Your task to perform on an android device: open wifi settings Image 0: 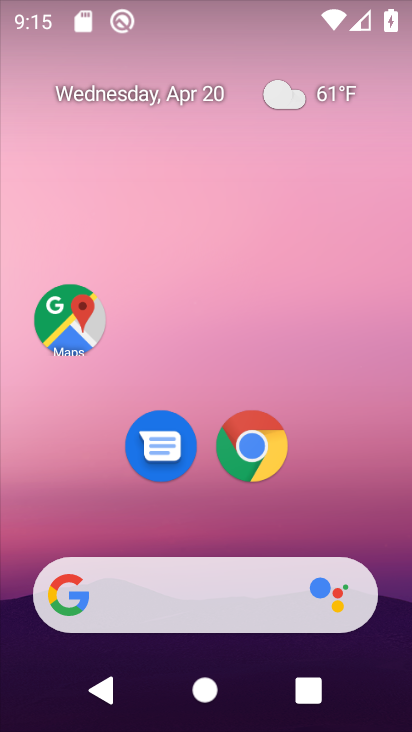
Step 0: drag from (383, 503) to (365, 106)
Your task to perform on an android device: open wifi settings Image 1: 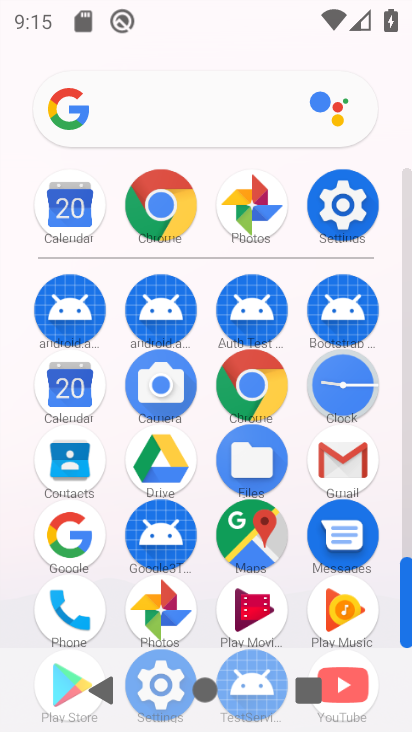
Step 1: drag from (291, 503) to (289, 148)
Your task to perform on an android device: open wifi settings Image 2: 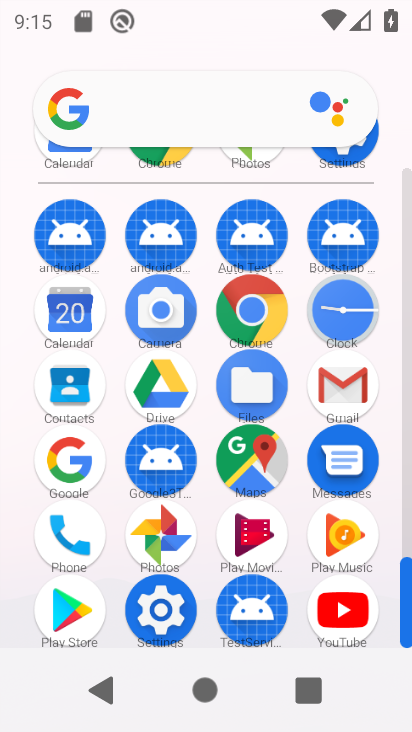
Step 2: drag from (293, 506) to (301, 256)
Your task to perform on an android device: open wifi settings Image 3: 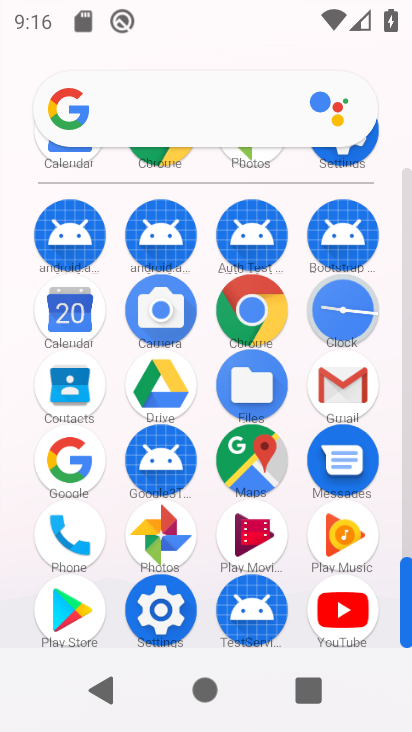
Step 3: drag from (295, 513) to (297, 233)
Your task to perform on an android device: open wifi settings Image 4: 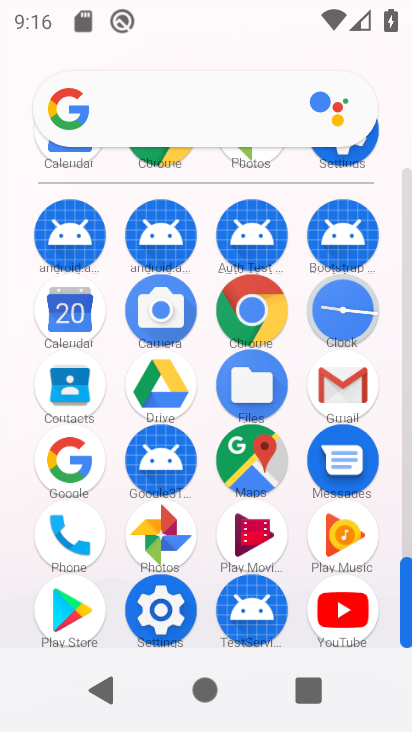
Step 4: drag from (209, 562) to (184, 328)
Your task to perform on an android device: open wifi settings Image 5: 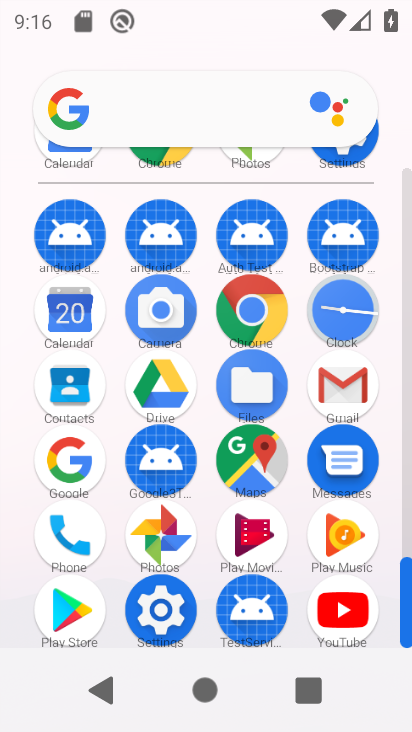
Step 5: click (175, 609)
Your task to perform on an android device: open wifi settings Image 6: 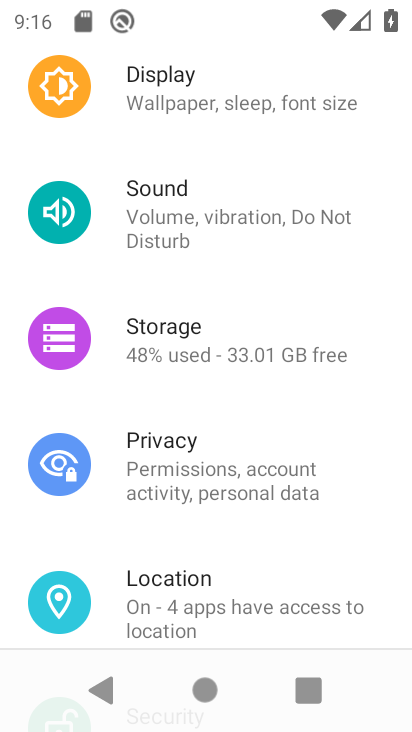
Step 6: drag from (283, 510) to (292, 244)
Your task to perform on an android device: open wifi settings Image 7: 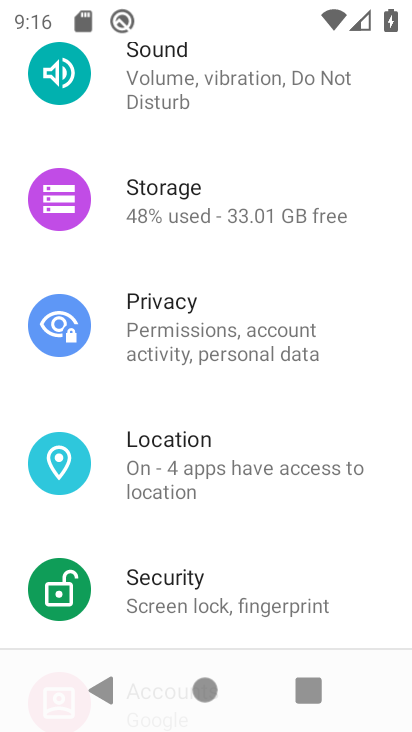
Step 7: drag from (329, 131) to (267, 540)
Your task to perform on an android device: open wifi settings Image 8: 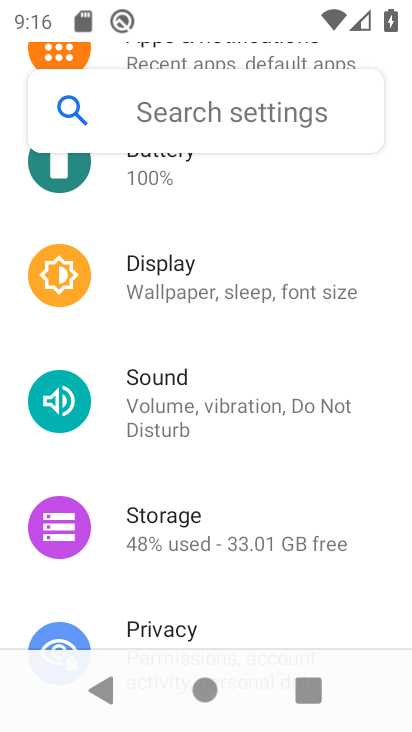
Step 8: drag from (303, 220) to (286, 556)
Your task to perform on an android device: open wifi settings Image 9: 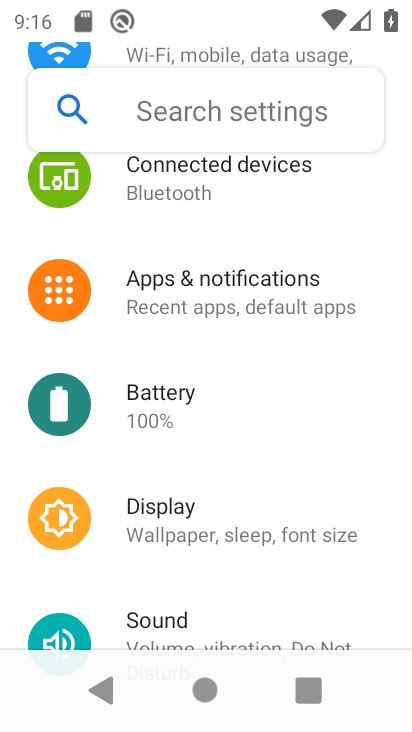
Step 9: drag from (278, 252) to (278, 587)
Your task to perform on an android device: open wifi settings Image 10: 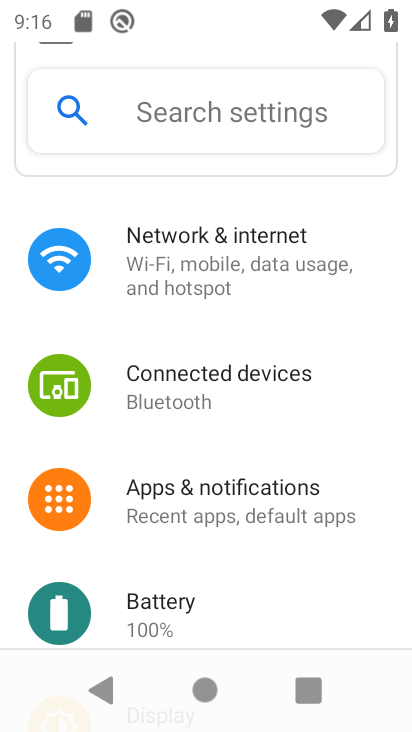
Step 10: click (220, 287)
Your task to perform on an android device: open wifi settings Image 11: 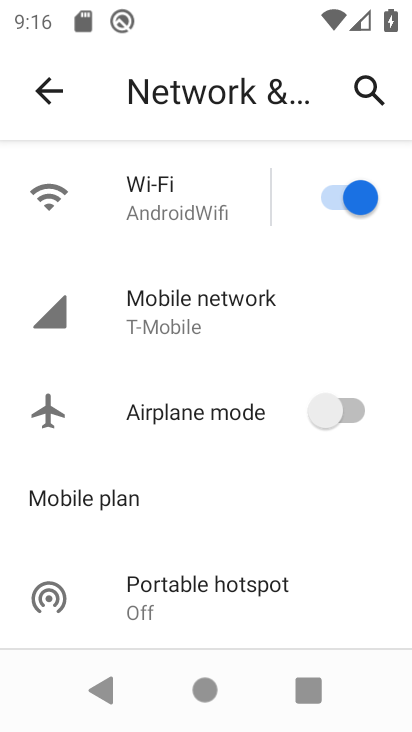
Step 11: click (227, 219)
Your task to perform on an android device: open wifi settings Image 12: 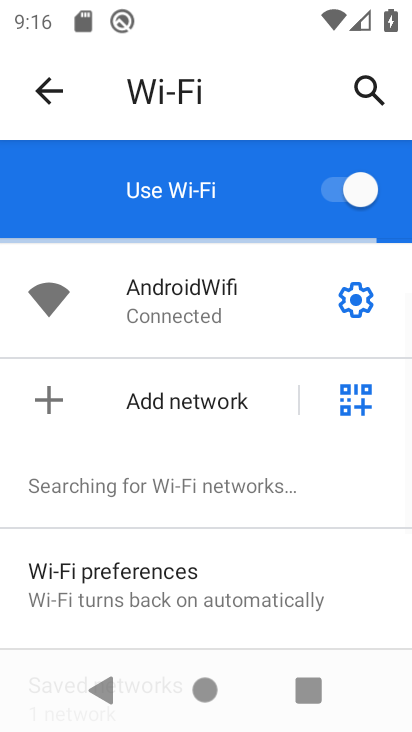
Step 12: click (369, 304)
Your task to perform on an android device: open wifi settings Image 13: 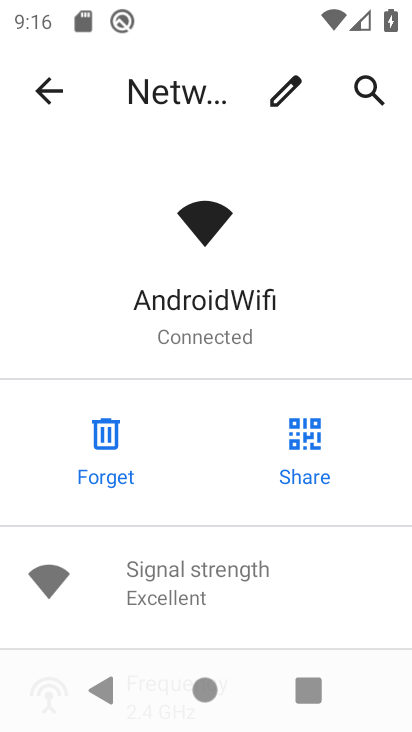
Step 13: task complete